Your task to perform on an android device: turn off notifications in google photos Image 0: 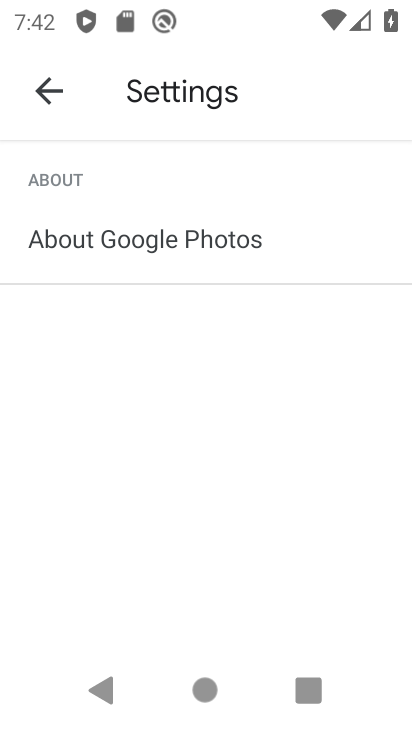
Step 0: press home button
Your task to perform on an android device: turn off notifications in google photos Image 1: 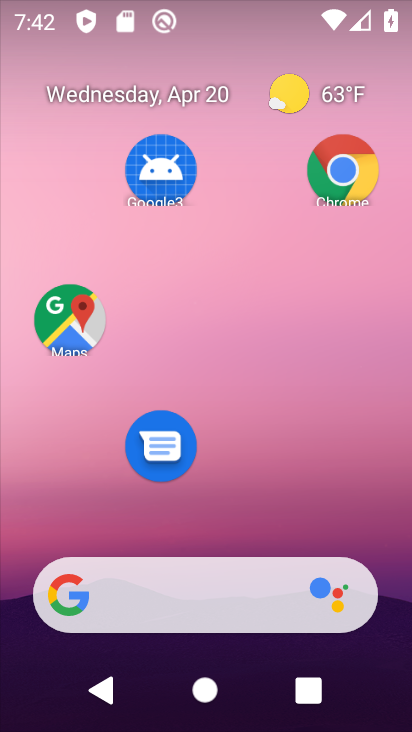
Step 1: drag from (250, 503) to (225, 93)
Your task to perform on an android device: turn off notifications in google photos Image 2: 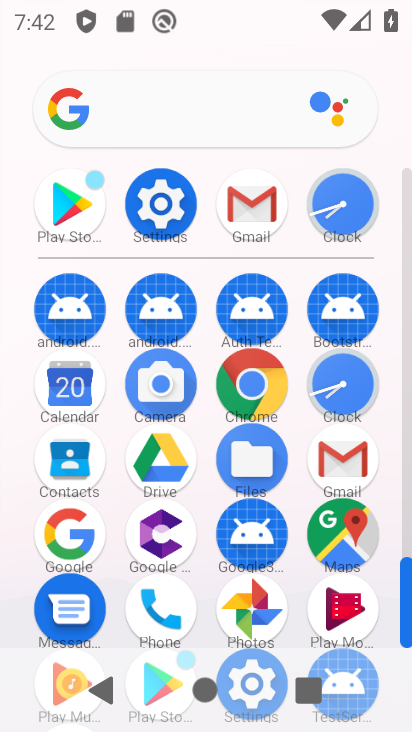
Step 2: click (247, 612)
Your task to perform on an android device: turn off notifications in google photos Image 3: 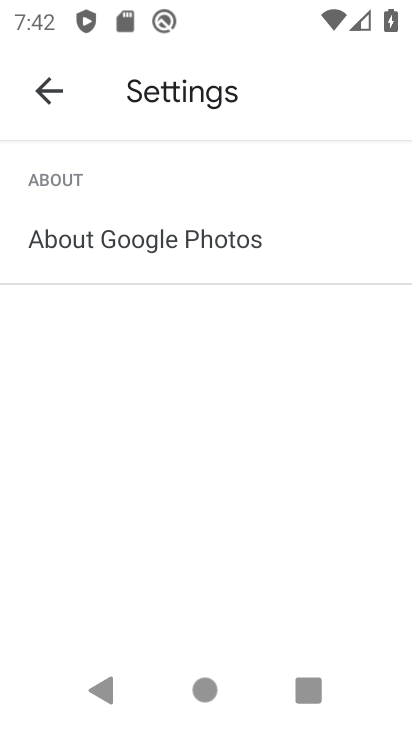
Step 3: click (47, 85)
Your task to perform on an android device: turn off notifications in google photos Image 4: 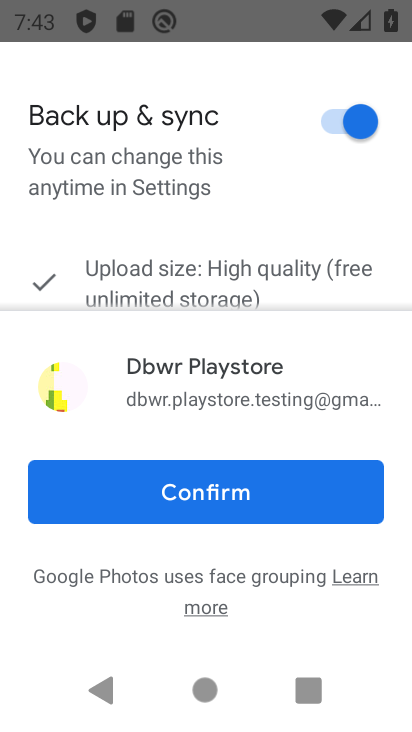
Step 4: click (204, 497)
Your task to perform on an android device: turn off notifications in google photos Image 5: 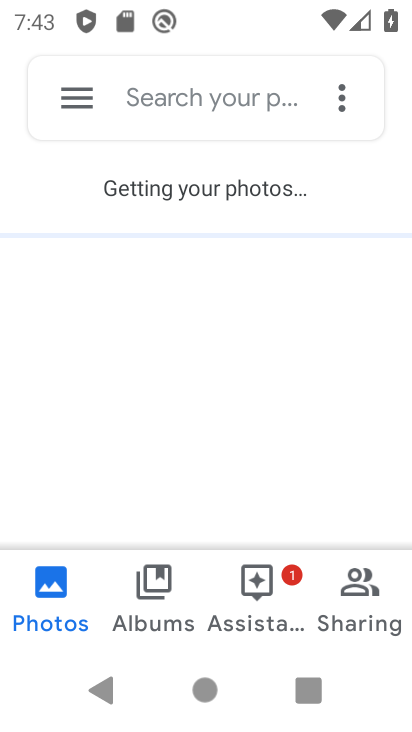
Step 5: click (70, 95)
Your task to perform on an android device: turn off notifications in google photos Image 6: 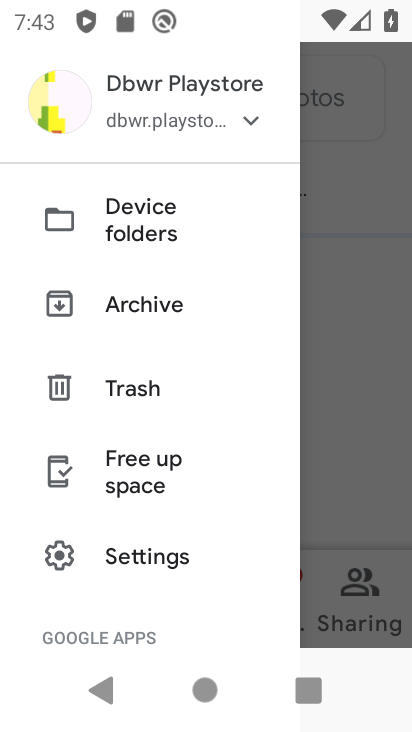
Step 6: click (133, 558)
Your task to perform on an android device: turn off notifications in google photos Image 7: 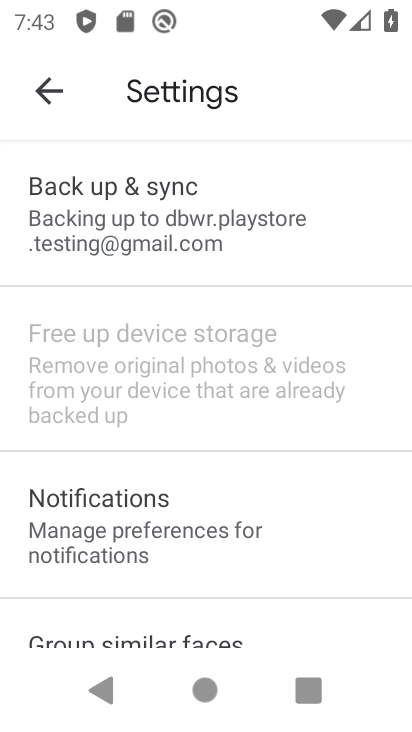
Step 7: click (117, 495)
Your task to perform on an android device: turn off notifications in google photos Image 8: 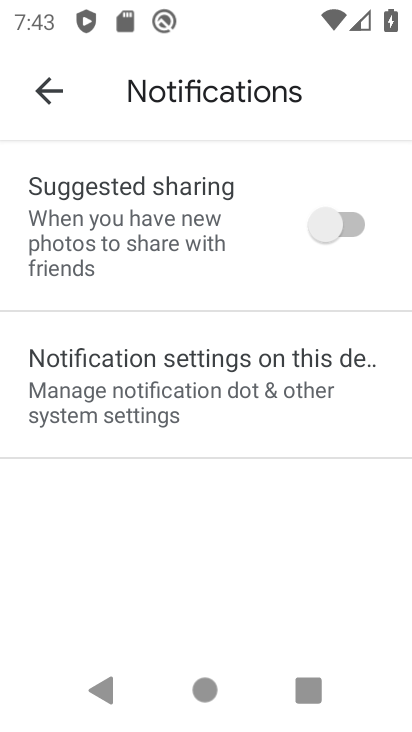
Step 8: click (154, 361)
Your task to perform on an android device: turn off notifications in google photos Image 9: 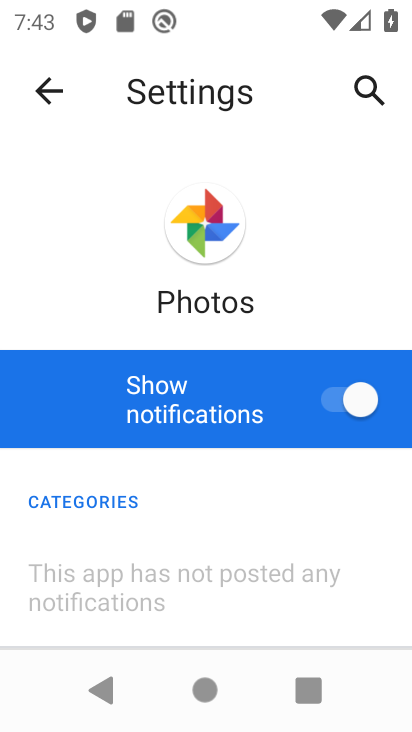
Step 9: click (353, 404)
Your task to perform on an android device: turn off notifications in google photos Image 10: 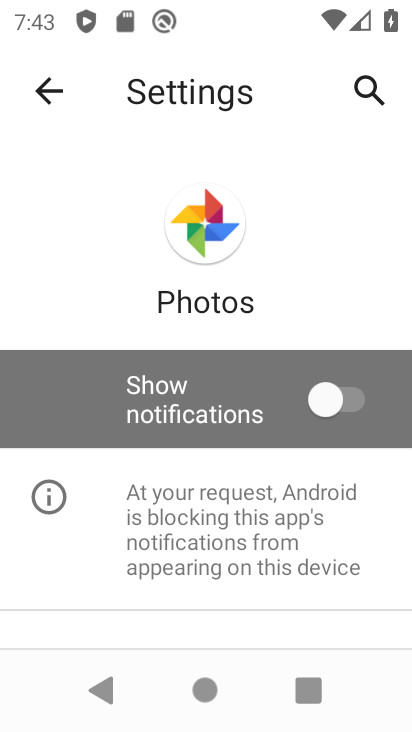
Step 10: task complete